Your task to perform on an android device: Go to internet settings Image 0: 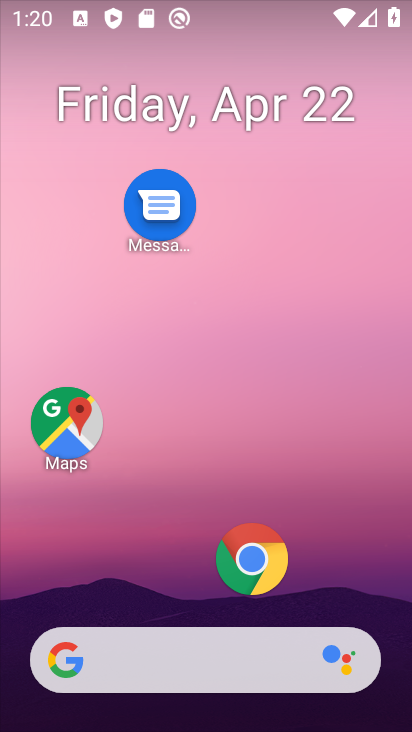
Step 0: drag from (202, 614) to (202, 215)
Your task to perform on an android device: Go to internet settings Image 1: 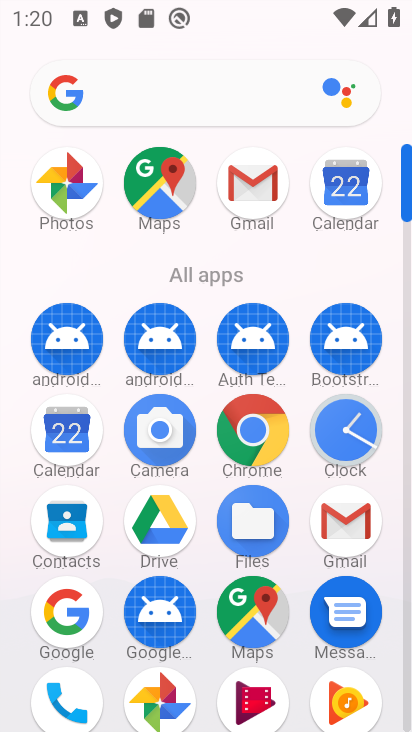
Step 1: drag from (203, 640) to (218, 200)
Your task to perform on an android device: Go to internet settings Image 2: 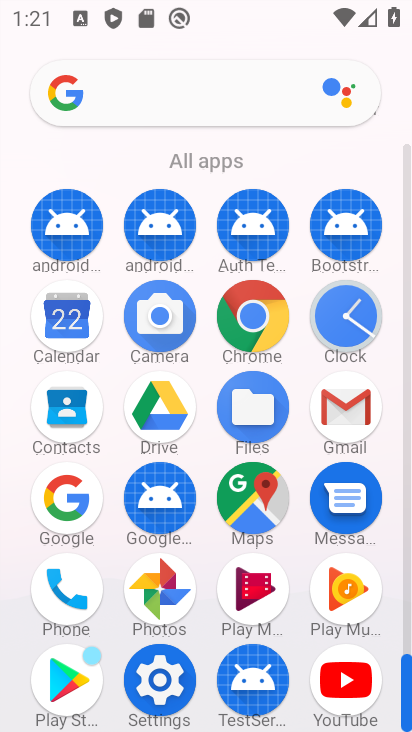
Step 2: drag from (215, 450) to (226, 245)
Your task to perform on an android device: Go to internet settings Image 3: 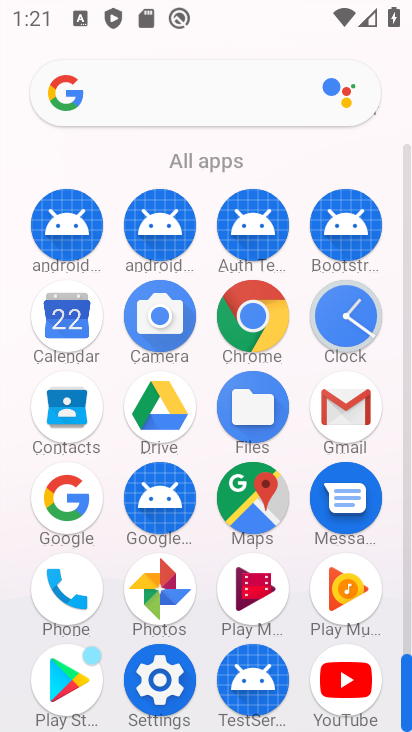
Step 3: click (159, 680)
Your task to perform on an android device: Go to internet settings Image 4: 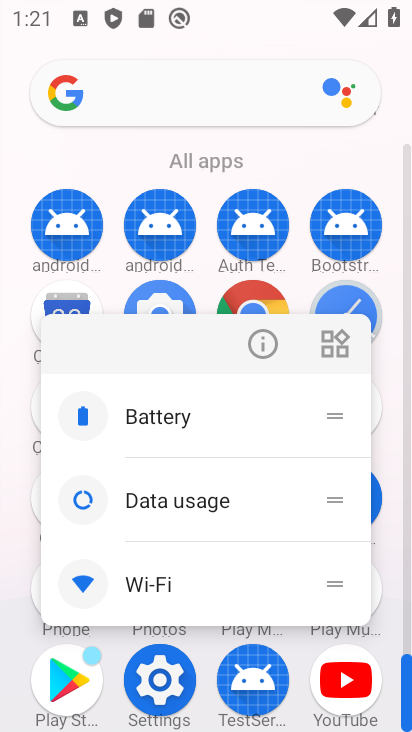
Step 4: click (159, 680)
Your task to perform on an android device: Go to internet settings Image 5: 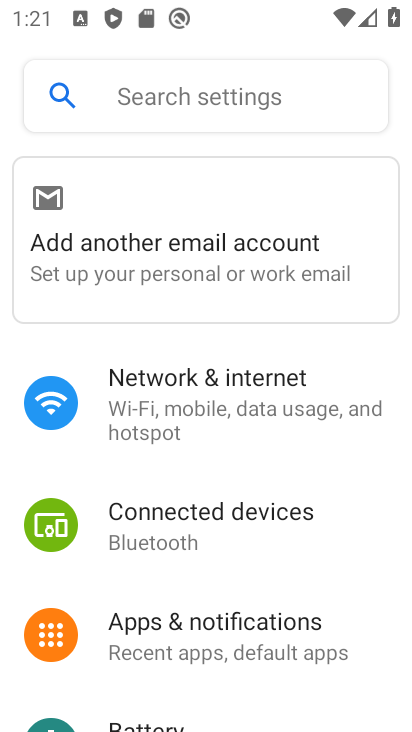
Step 5: click (247, 392)
Your task to perform on an android device: Go to internet settings Image 6: 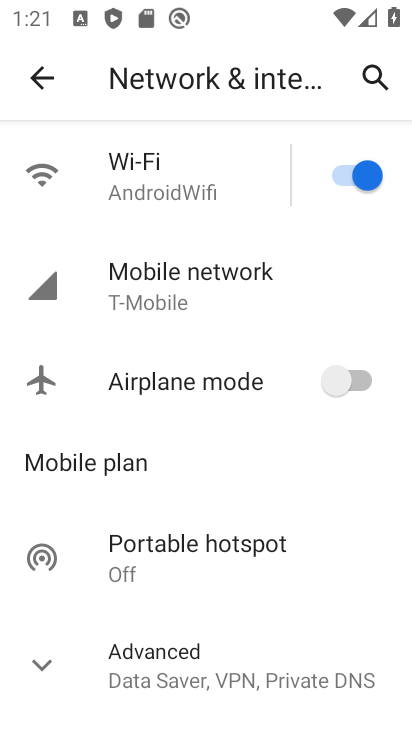
Step 6: click (45, 655)
Your task to perform on an android device: Go to internet settings Image 7: 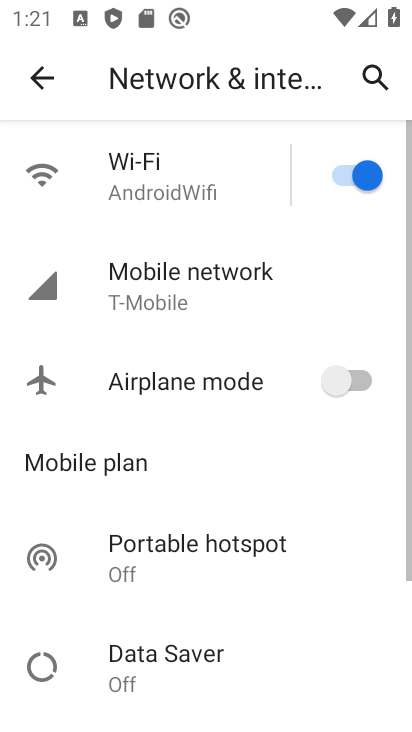
Step 7: task complete